Your task to perform on an android device: find snoozed emails in the gmail app Image 0: 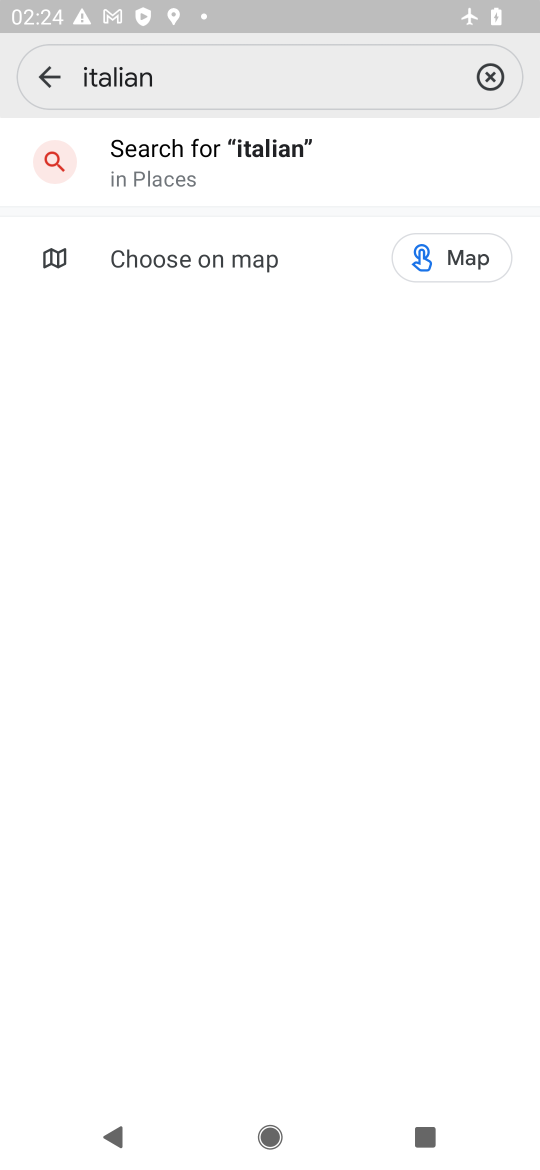
Step 0: press home button
Your task to perform on an android device: find snoozed emails in the gmail app Image 1: 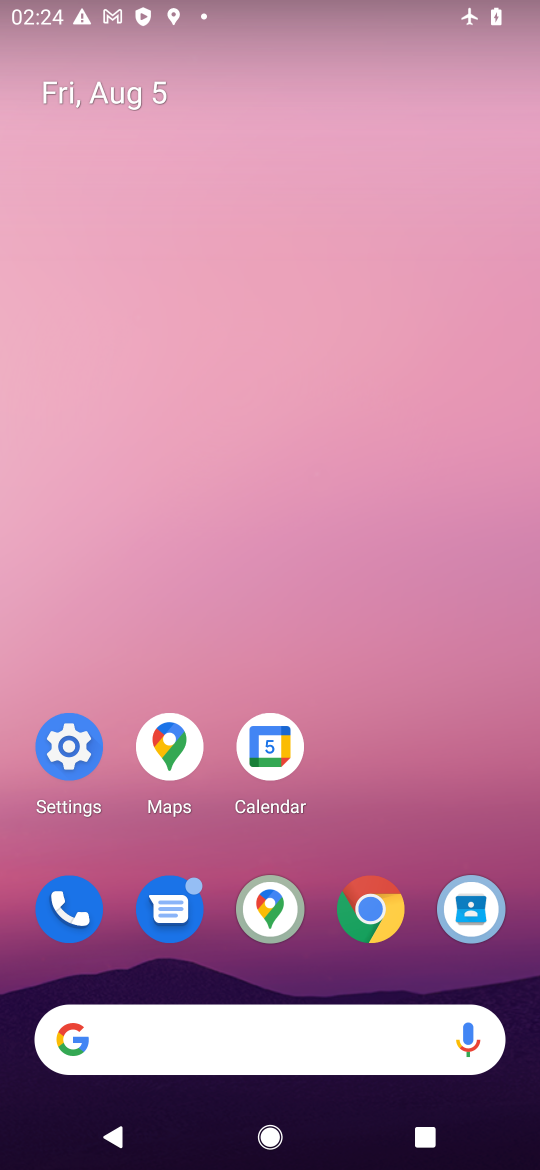
Step 1: drag from (379, 791) to (327, 131)
Your task to perform on an android device: find snoozed emails in the gmail app Image 2: 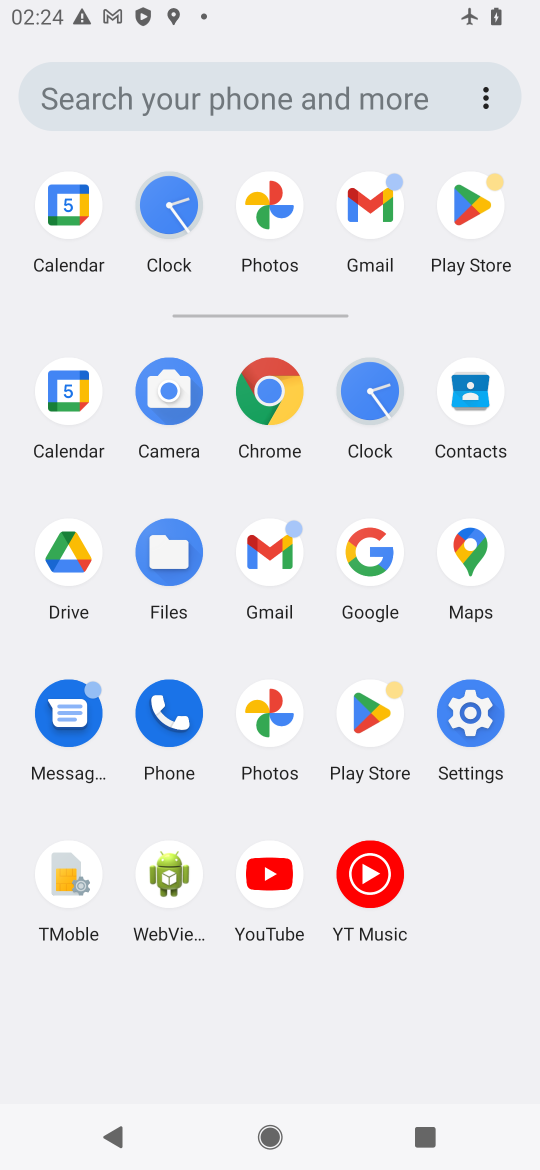
Step 2: click (365, 215)
Your task to perform on an android device: find snoozed emails in the gmail app Image 3: 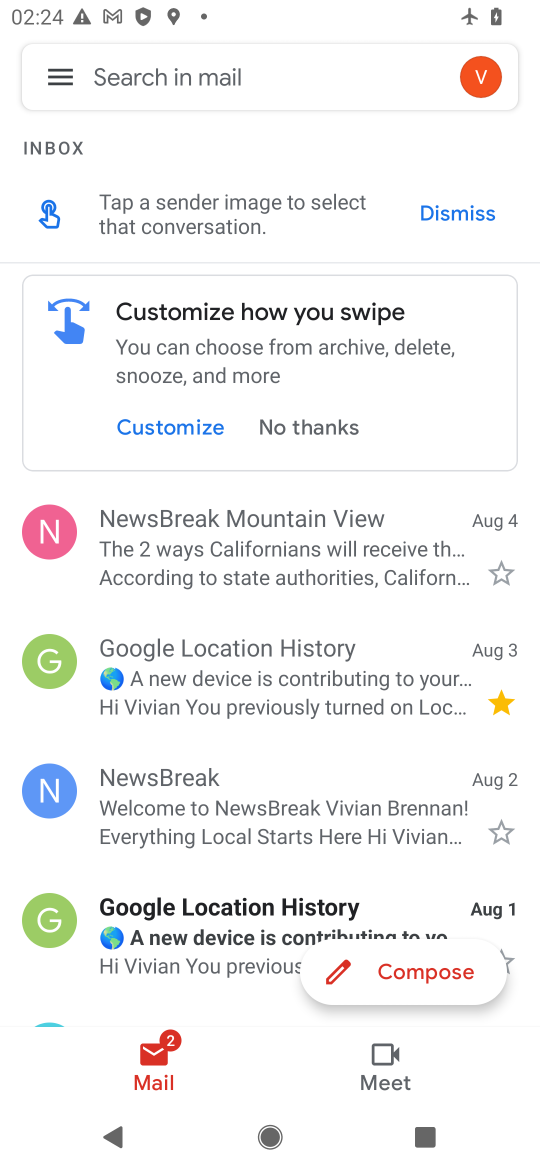
Step 3: click (44, 71)
Your task to perform on an android device: find snoozed emails in the gmail app Image 4: 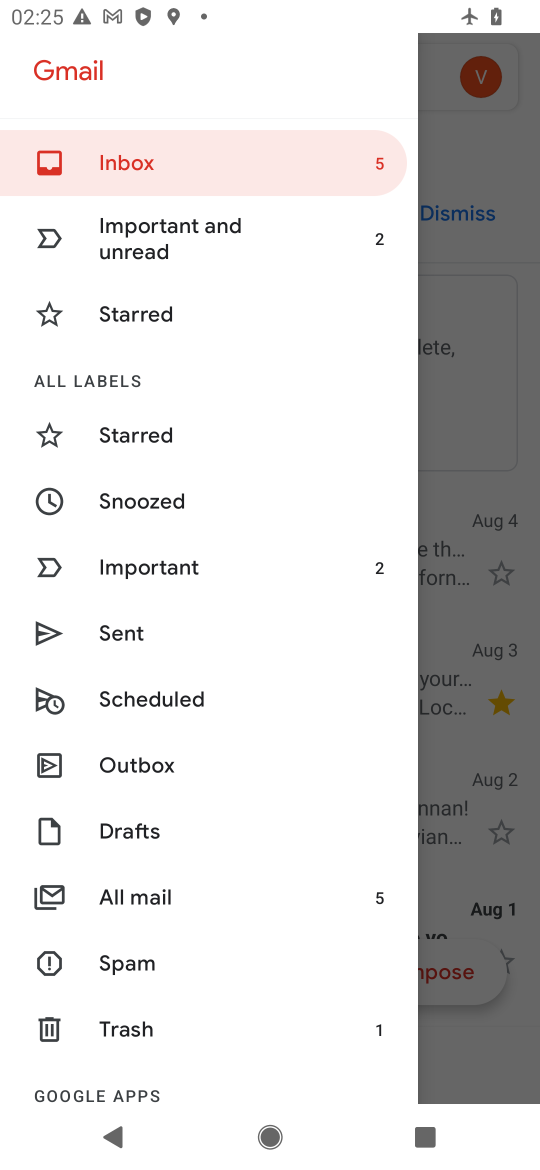
Step 4: click (143, 493)
Your task to perform on an android device: find snoozed emails in the gmail app Image 5: 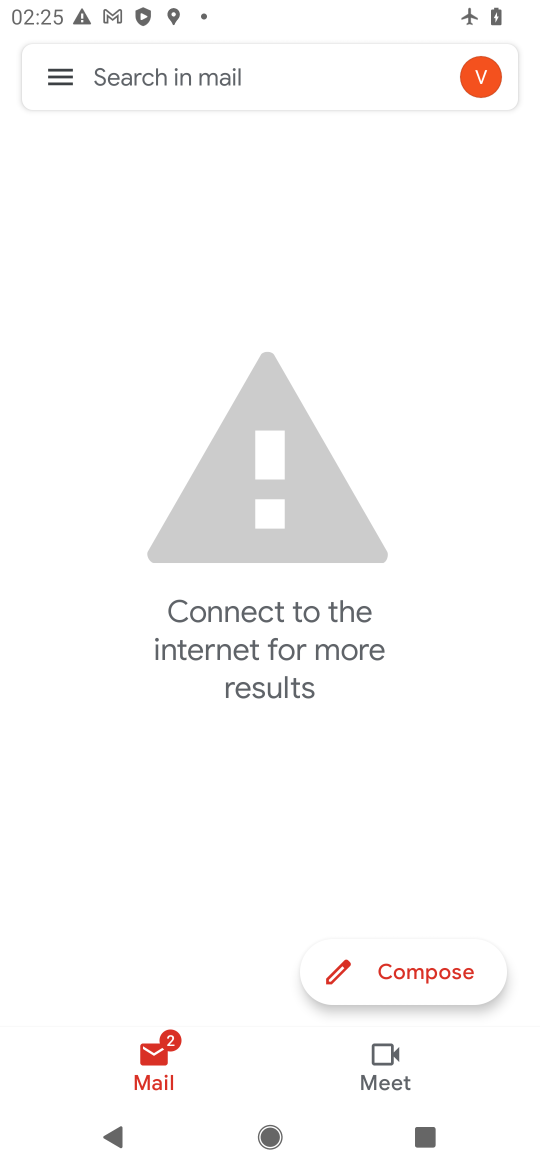
Step 5: task complete